Your task to perform on an android device: move an email to a new category in the gmail app Image 0: 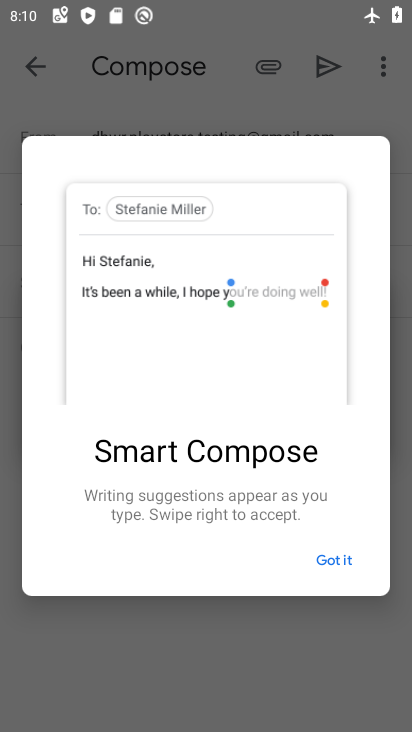
Step 0: press home button
Your task to perform on an android device: move an email to a new category in the gmail app Image 1: 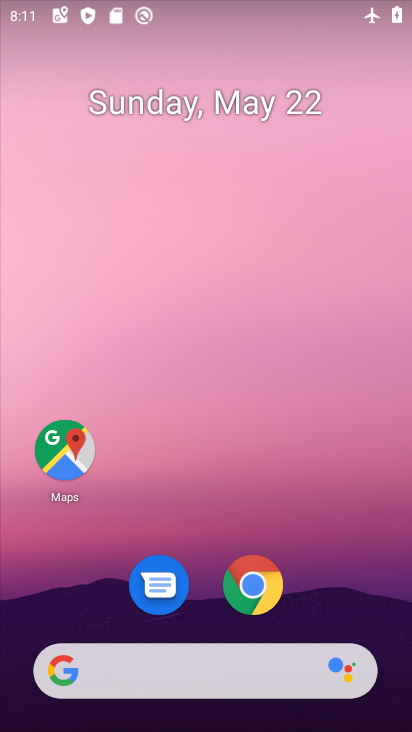
Step 1: drag from (181, 509) to (230, 4)
Your task to perform on an android device: move an email to a new category in the gmail app Image 2: 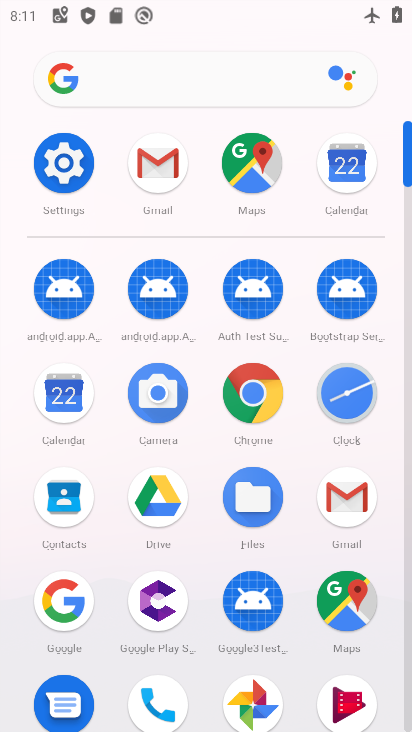
Step 2: click (62, 169)
Your task to perform on an android device: move an email to a new category in the gmail app Image 3: 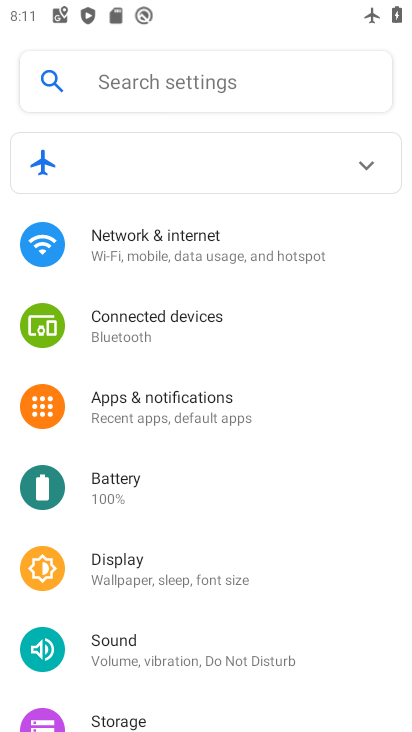
Step 3: click (184, 247)
Your task to perform on an android device: move an email to a new category in the gmail app Image 4: 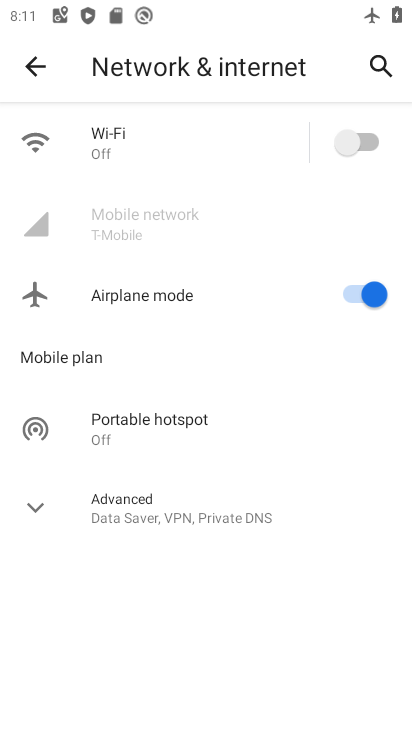
Step 4: click (347, 288)
Your task to perform on an android device: move an email to a new category in the gmail app Image 5: 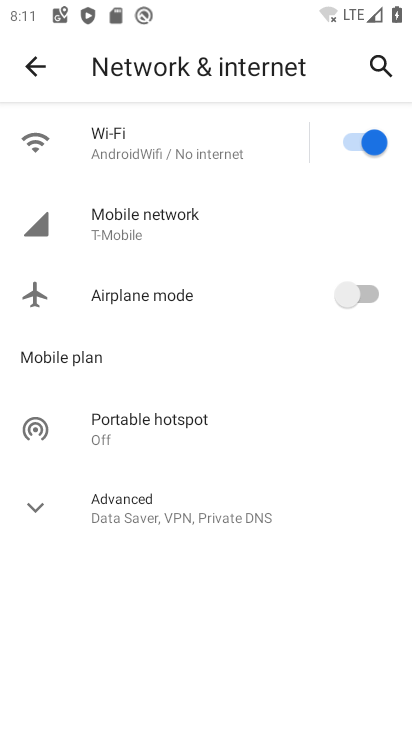
Step 5: press home button
Your task to perform on an android device: move an email to a new category in the gmail app Image 6: 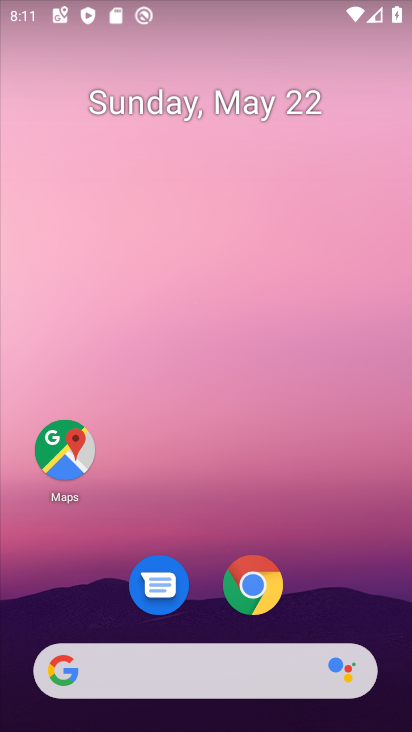
Step 6: drag from (206, 498) to (226, 10)
Your task to perform on an android device: move an email to a new category in the gmail app Image 7: 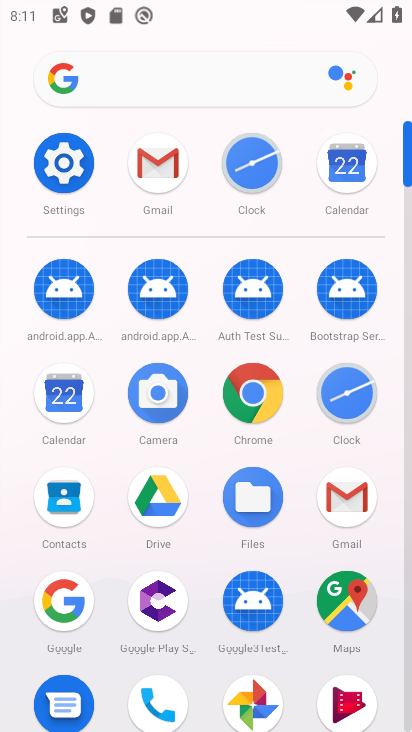
Step 7: click (172, 159)
Your task to perform on an android device: move an email to a new category in the gmail app Image 8: 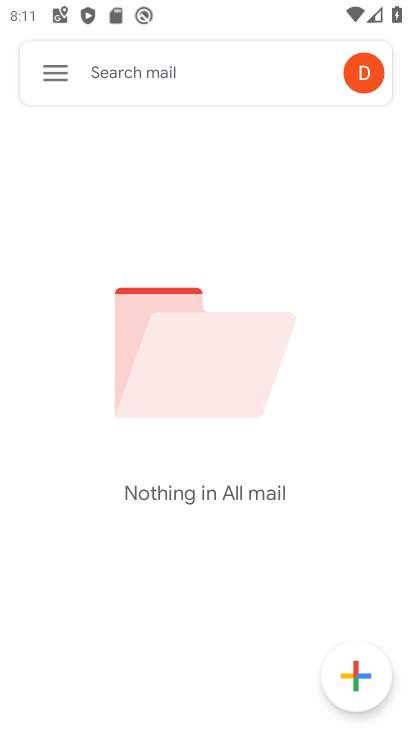
Step 8: click (61, 73)
Your task to perform on an android device: move an email to a new category in the gmail app Image 9: 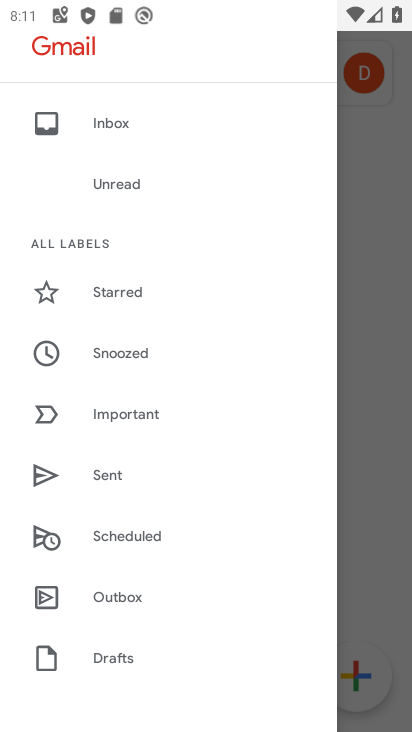
Step 9: click (360, 292)
Your task to perform on an android device: move an email to a new category in the gmail app Image 10: 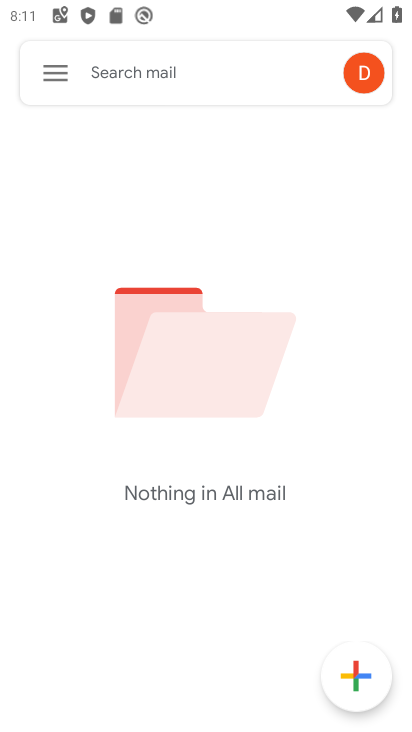
Step 10: task complete